Your task to perform on an android device: Search for "usb-a to usb-b" on target.com, select the first entry, add it to the cart, then select checkout. Image 0: 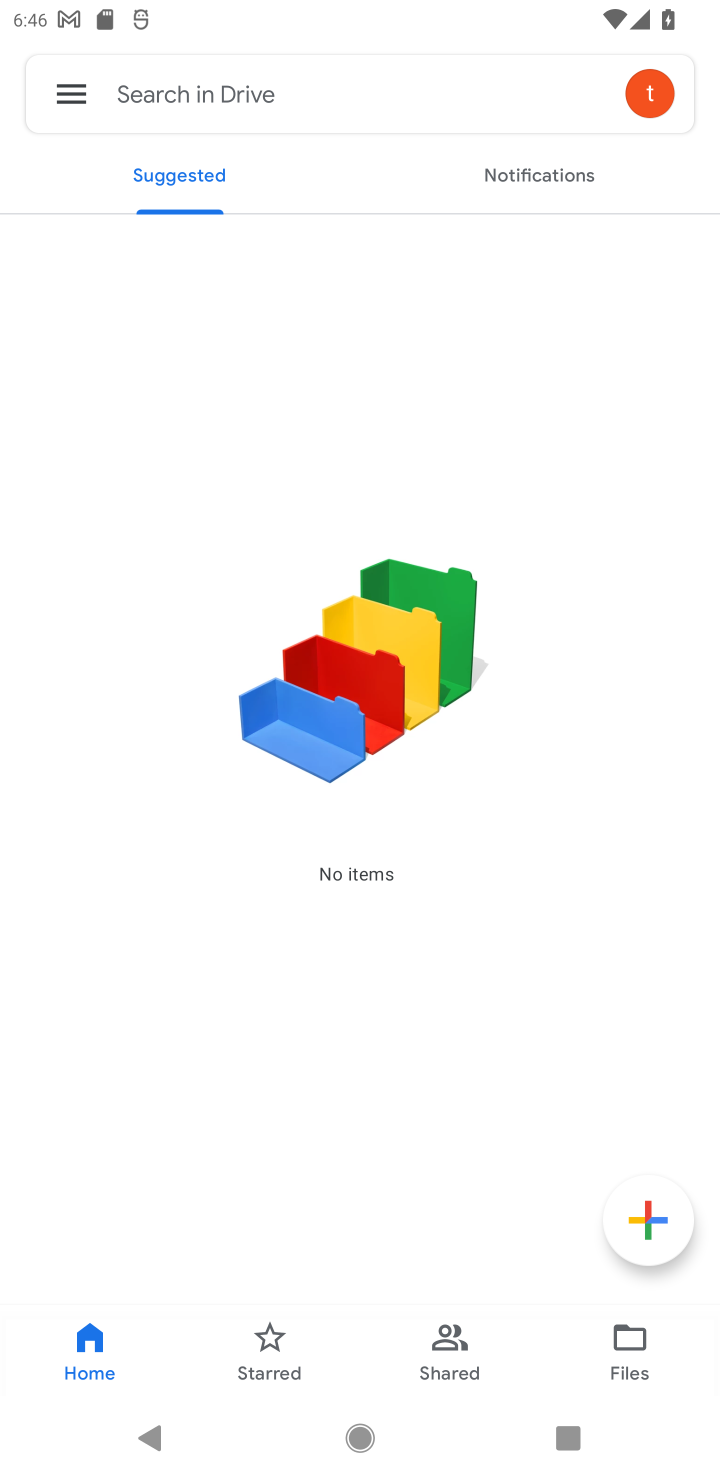
Step 0: press home button
Your task to perform on an android device: Search for "usb-a to usb-b" on target.com, select the first entry, add it to the cart, then select checkout. Image 1: 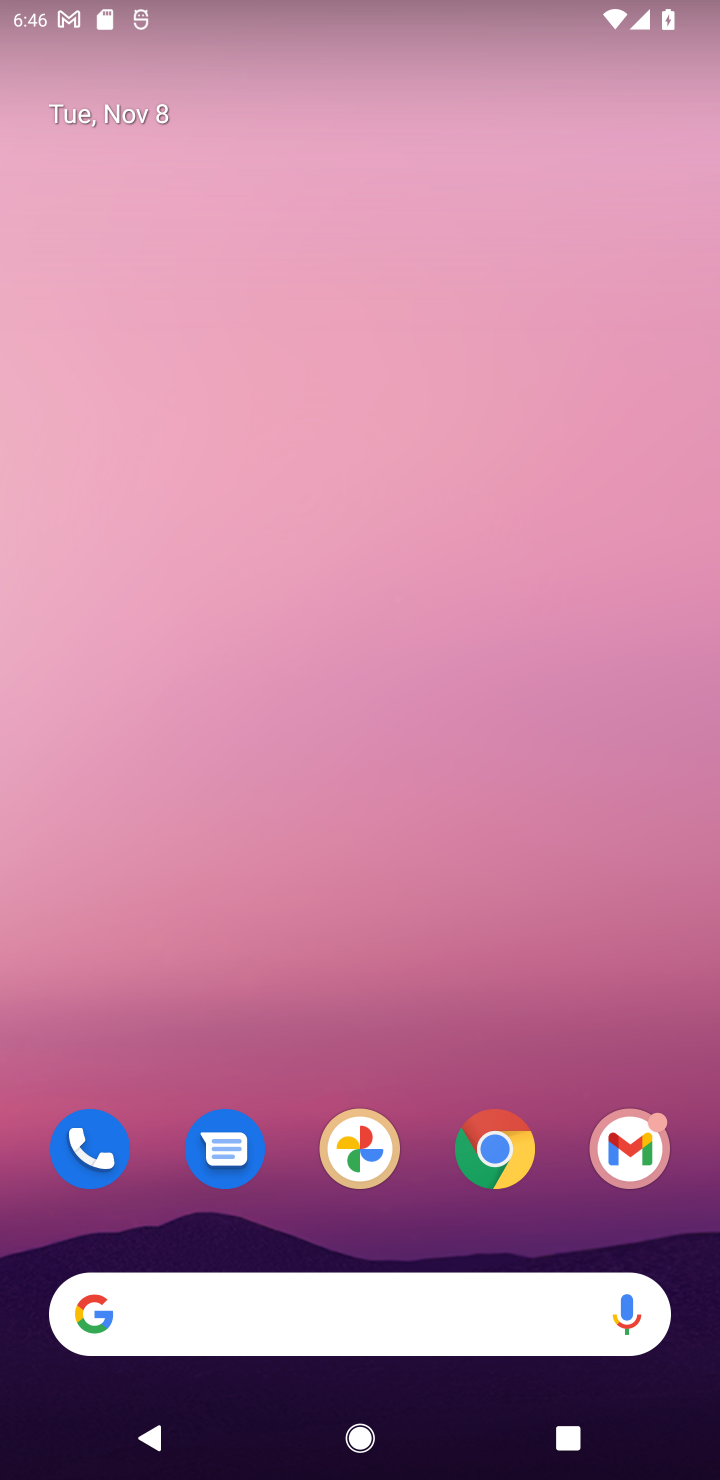
Step 1: click (506, 1154)
Your task to perform on an android device: Search for "usb-a to usb-b" on target.com, select the first entry, add it to the cart, then select checkout. Image 2: 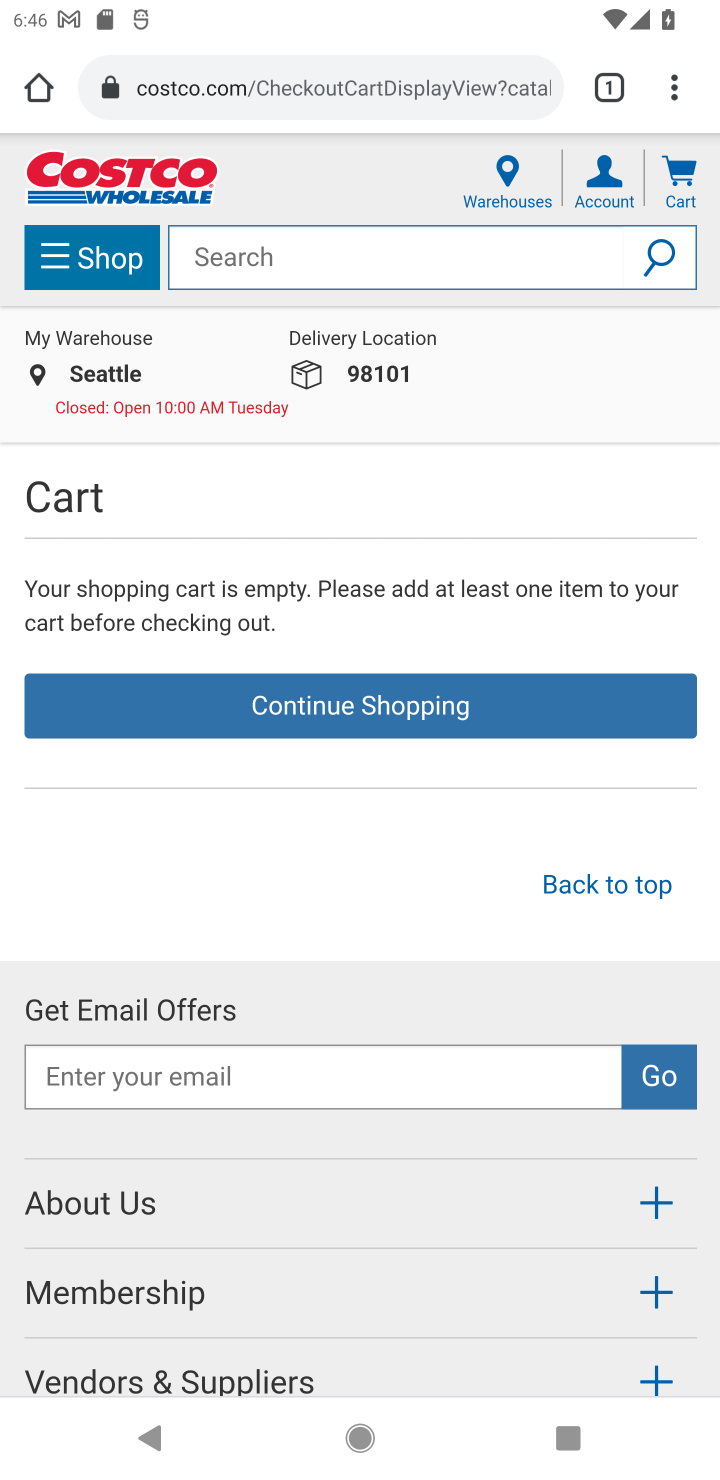
Step 2: click (525, 91)
Your task to perform on an android device: Search for "usb-a to usb-b" on target.com, select the first entry, add it to the cart, then select checkout. Image 3: 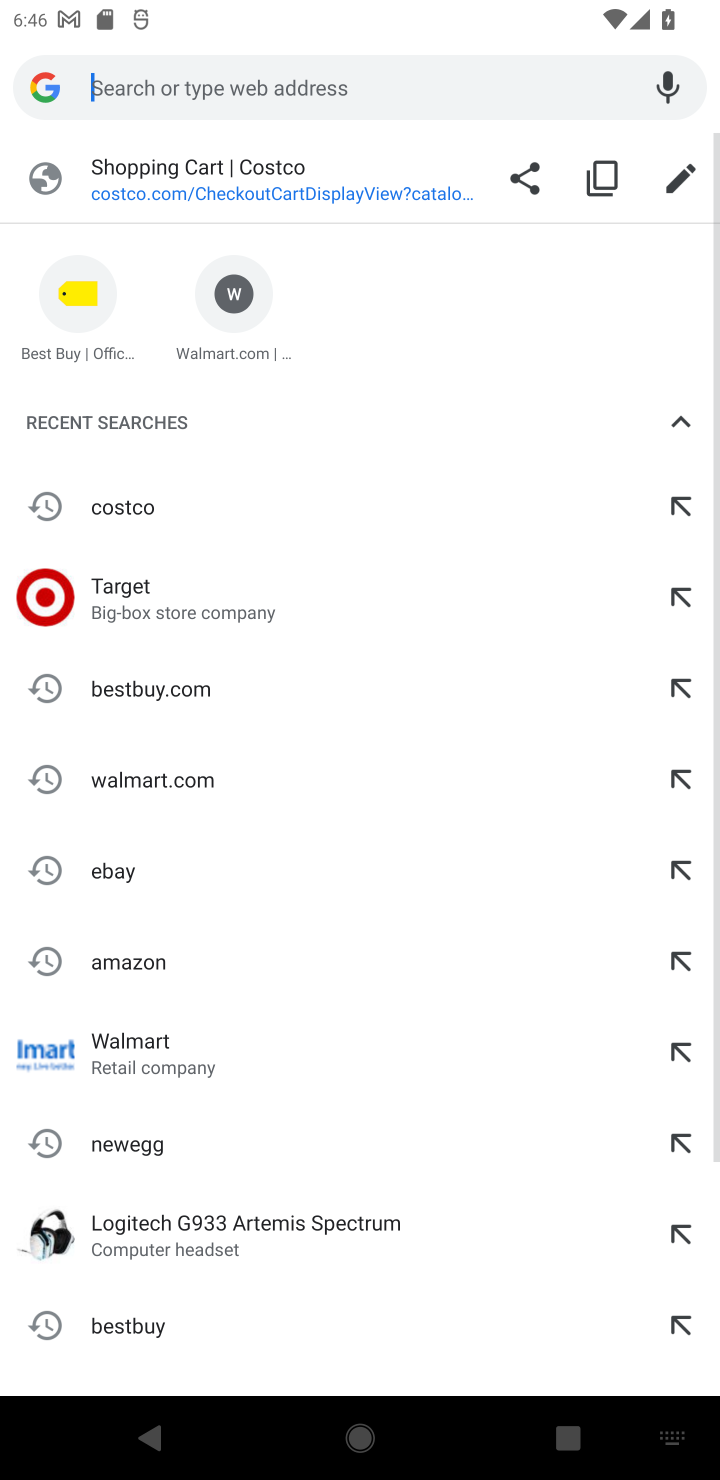
Step 3: click (197, 598)
Your task to perform on an android device: Search for "usb-a to usb-b" on target.com, select the first entry, add it to the cart, then select checkout. Image 4: 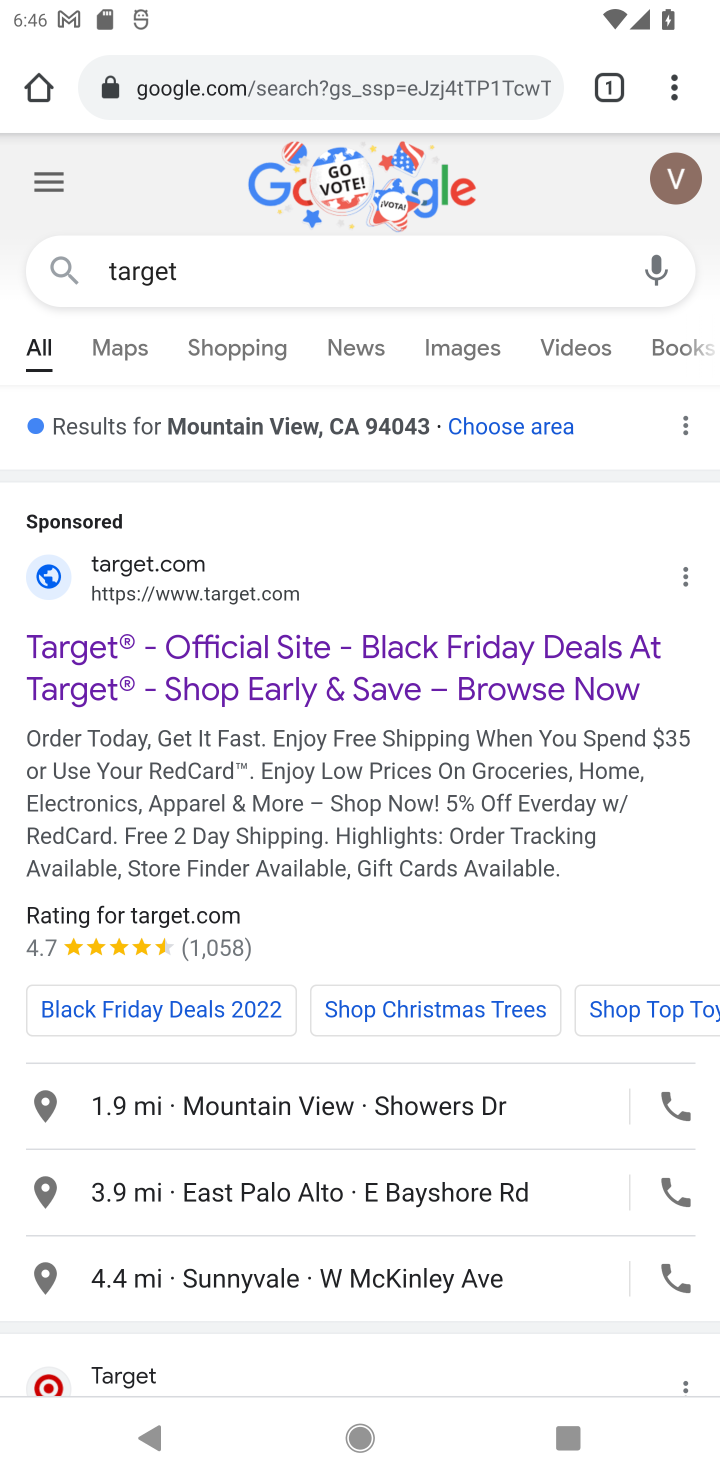
Step 4: click (235, 580)
Your task to perform on an android device: Search for "usb-a to usb-b" on target.com, select the first entry, add it to the cart, then select checkout. Image 5: 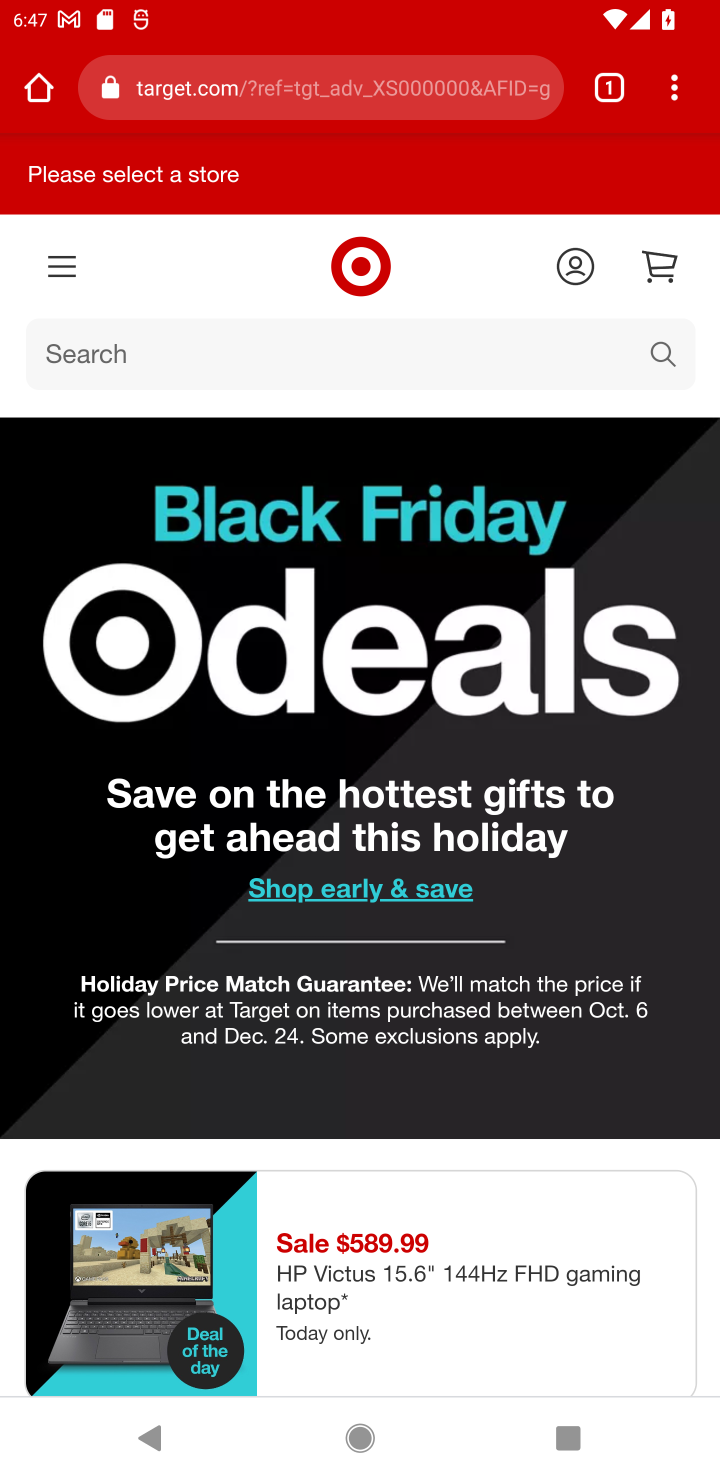
Step 5: click (661, 346)
Your task to perform on an android device: Search for "usb-a to usb-b" on target.com, select the first entry, add it to the cart, then select checkout. Image 6: 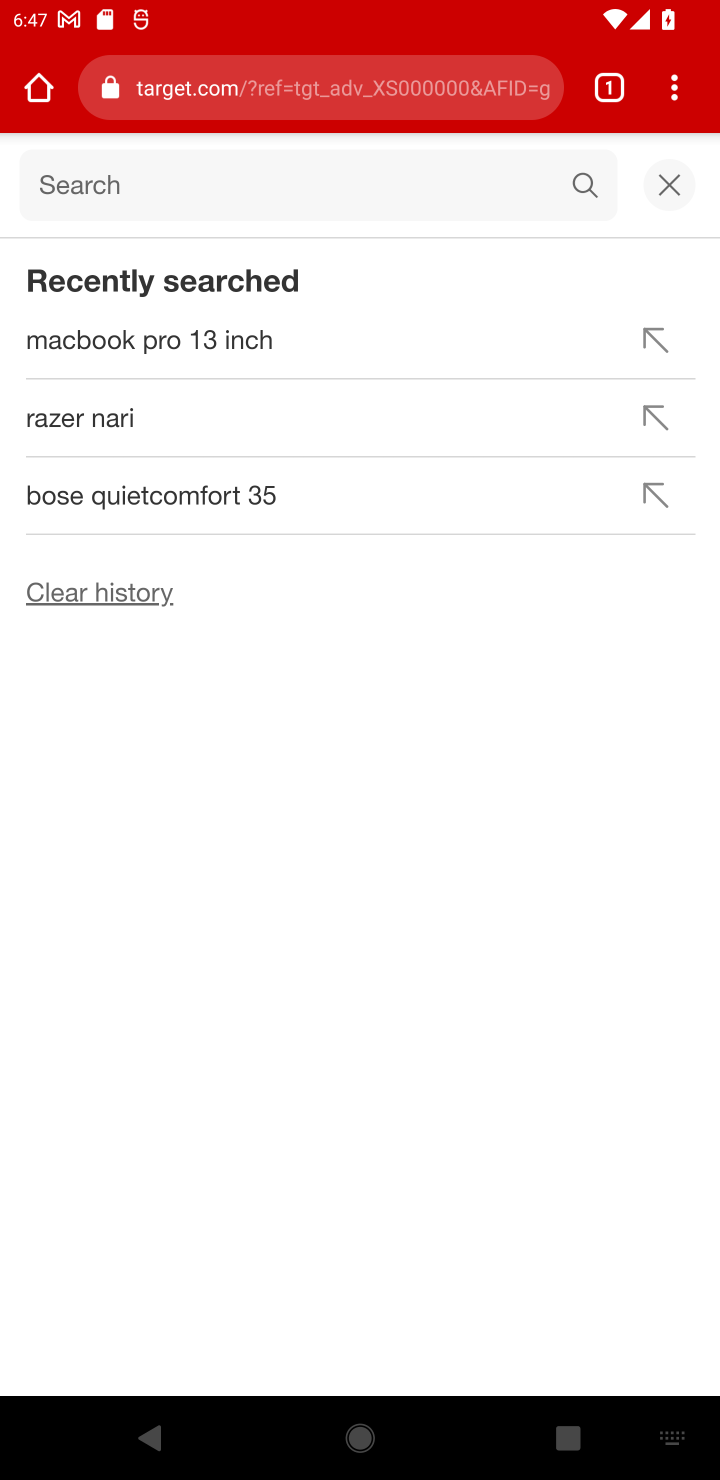
Step 6: type "usb-a to usb-b"
Your task to perform on an android device: Search for "usb-a to usb-b" on target.com, select the first entry, add it to the cart, then select checkout. Image 7: 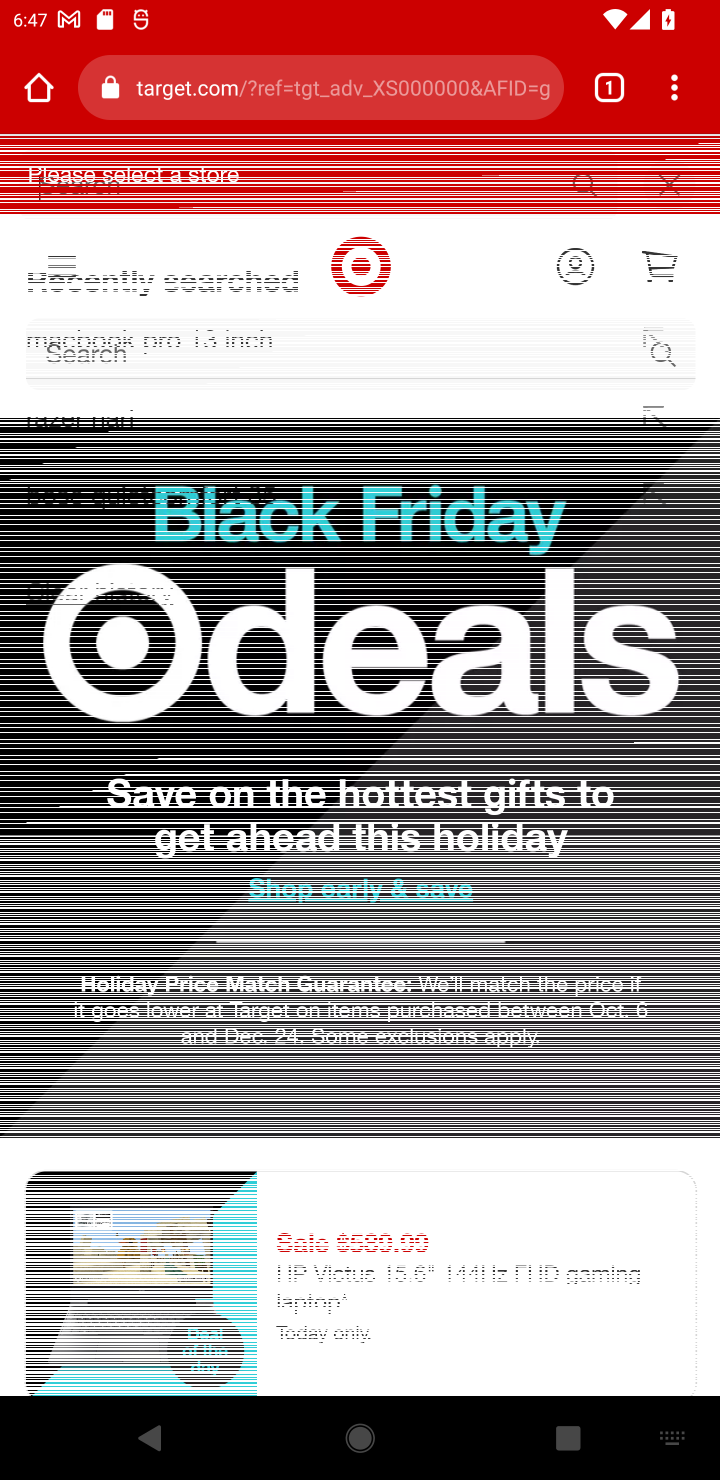
Step 7: press enter
Your task to perform on an android device: Search for "usb-a to usb-b" on target.com, select the first entry, add it to the cart, then select checkout. Image 8: 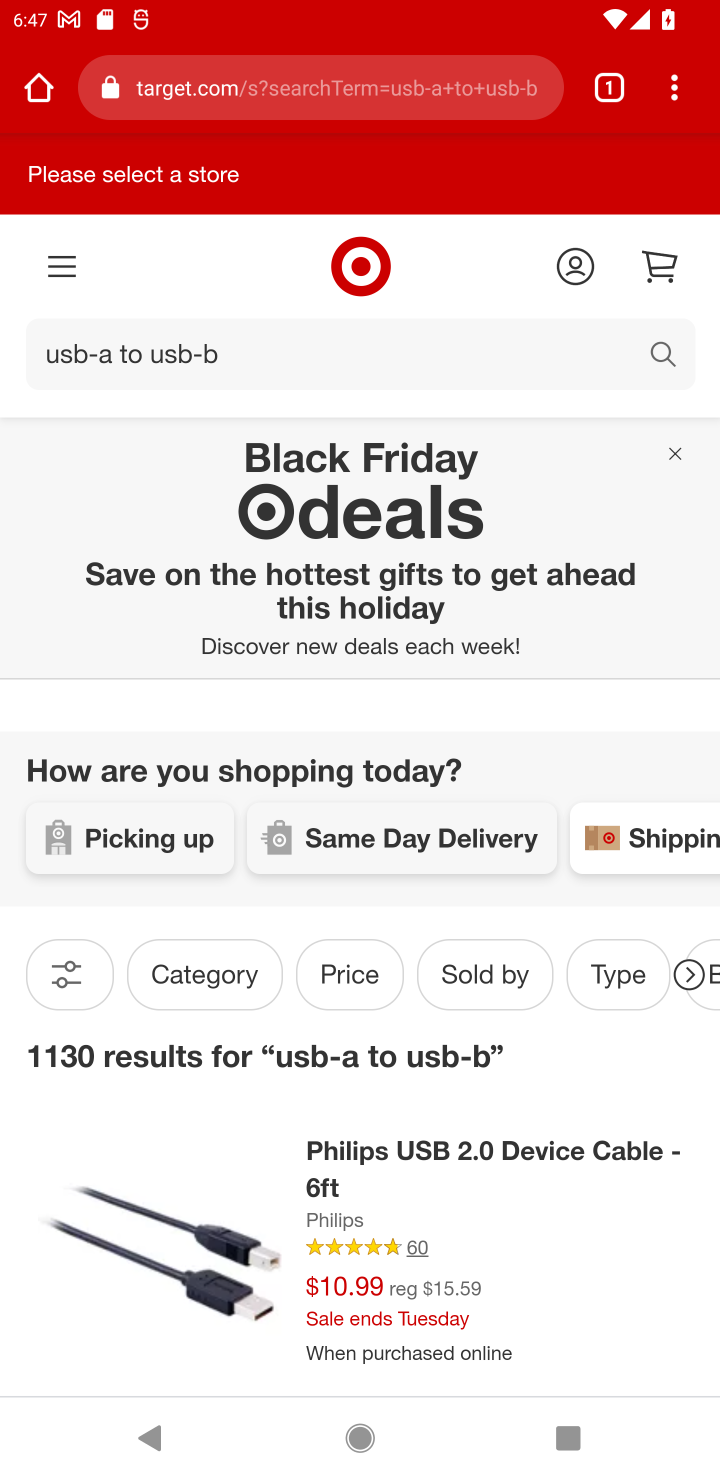
Step 8: task complete